Your task to perform on an android device: See recent photos Image 0: 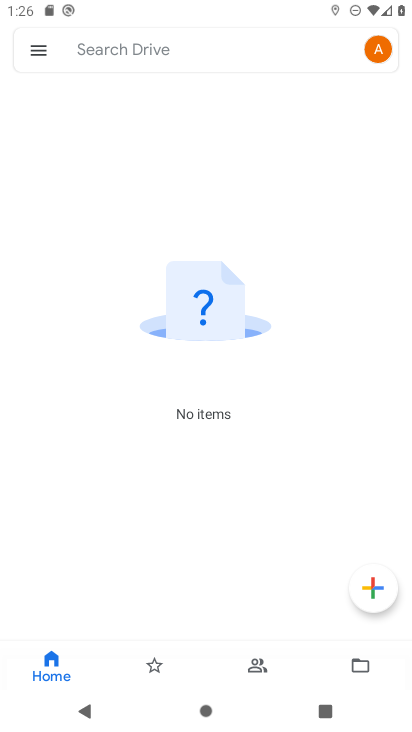
Step 0: press home button
Your task to perform on an android device: See recent photos Image 1: 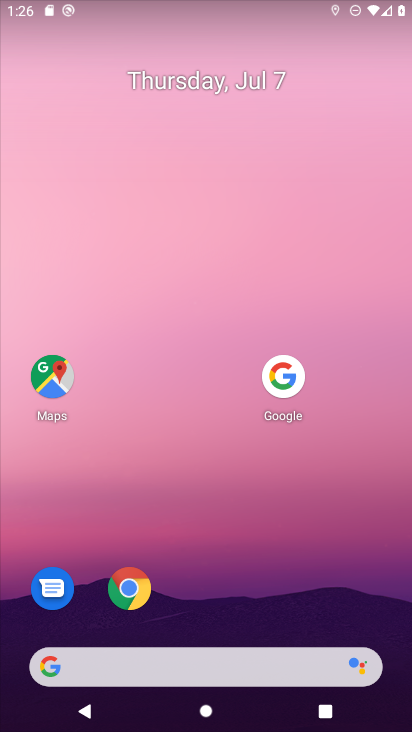
Step 1: drag from (212, 652) to (409, 284)
Your task to perform on an android device: See recent photos Image 2: 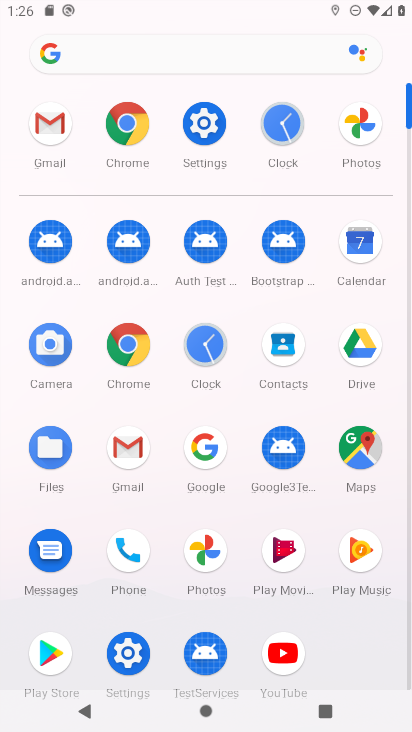
Step 2: click (207, 544)
Your task to perform on an android device: See recent photos Image 3: 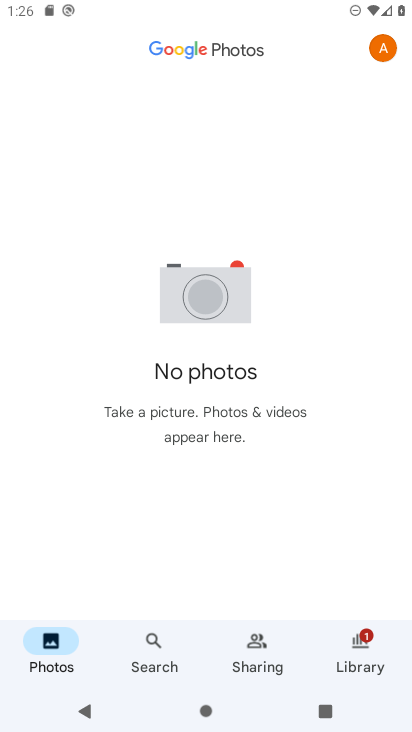
Step 3: task complete